Your task to perform on an android device: open a new tab in the chrome app Image 0: 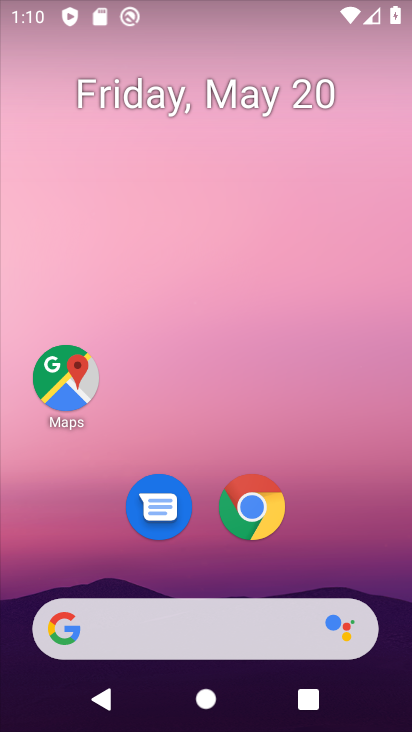
Step 0: click (250, 511)
Your task to perform on an android device: open a new tab in the chrome app Image 1: 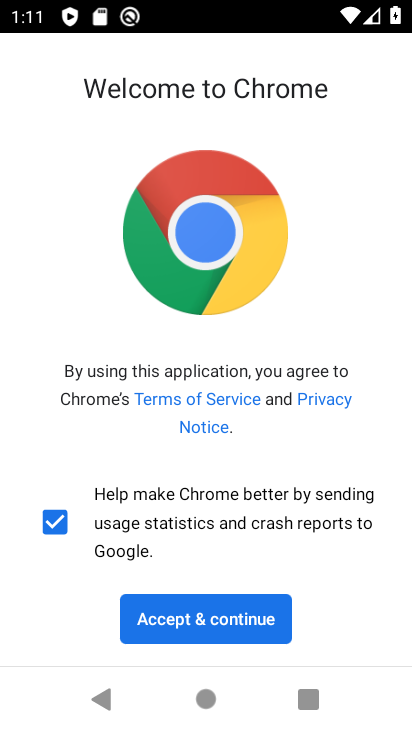
Step 1: click (217, 615)
Your task to perform on an android device: open a new tab in the chrome app Image 2: 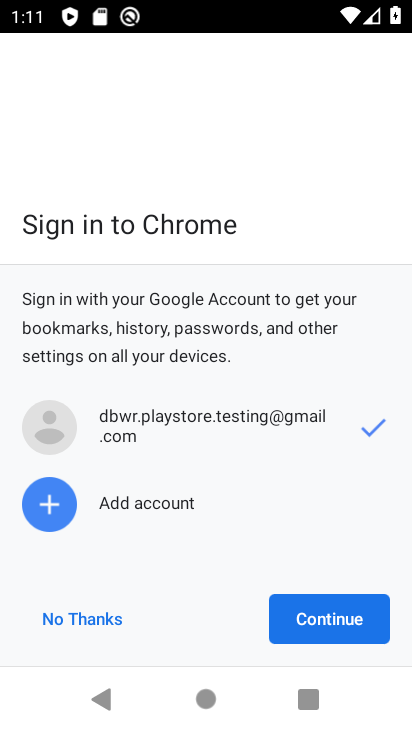
Step 2: click (337, 618)
Your task to perform on an android device: open a new tab in the chrome app Image 3: 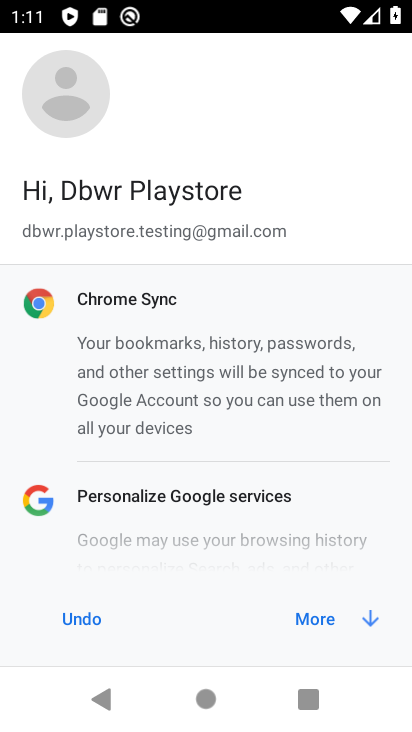
Step 3: click (337, 618)
Your task to perform on an android device: open a new tab in the chrome app Image 4: 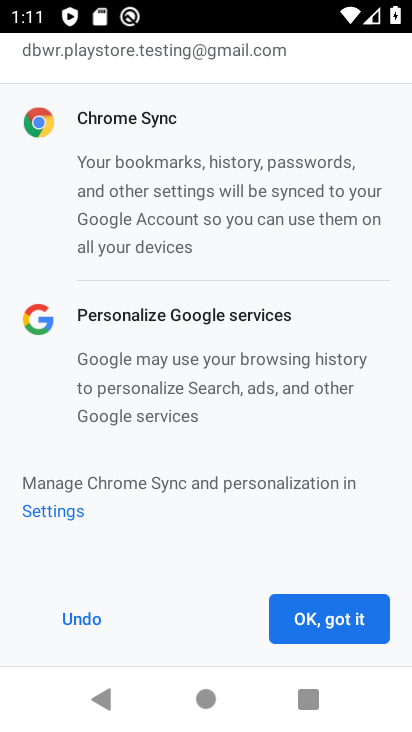
Step 4: click (337, 618)
Your task to perform on an android device: open a new tab in the chrome app Image 5: 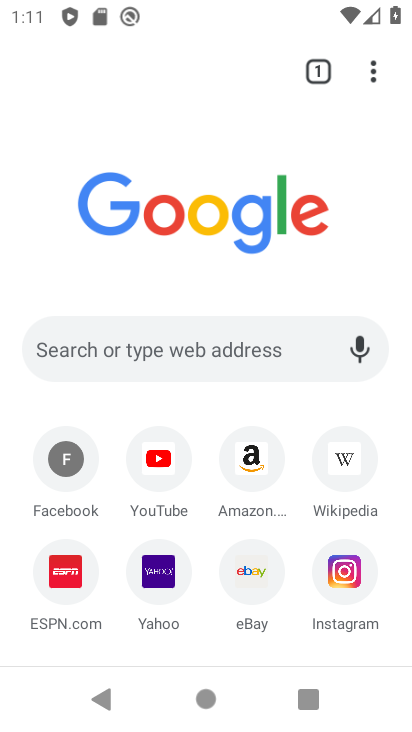
Step 5: click (371, 73)
Your task to perform on an android device: open a new tab in the chrome app Image 6: 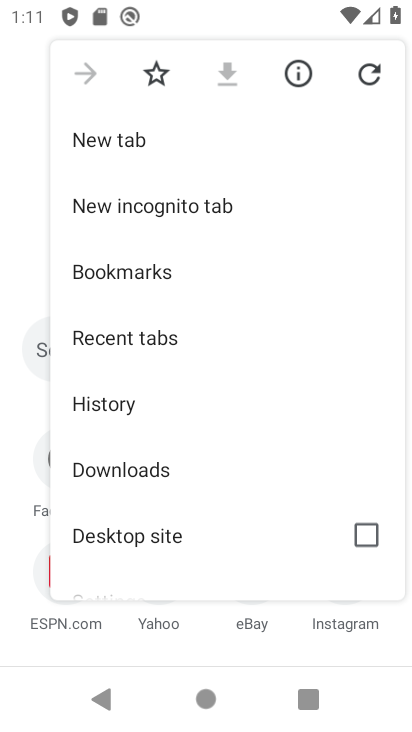
Step 6: click (112, 140)
Your task to perform on an android device: open a new tab in the chrome app Image 7: 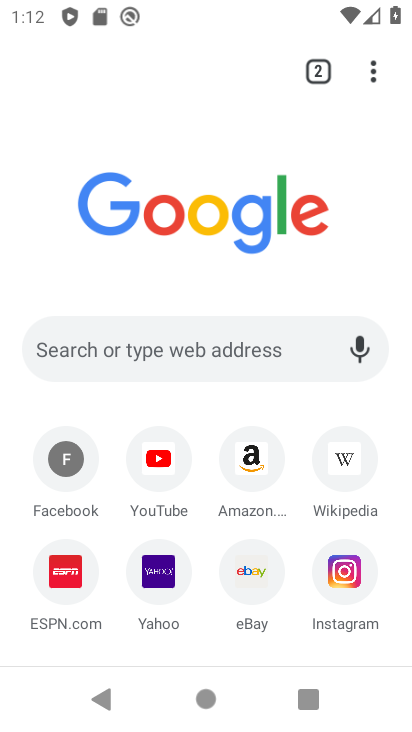
Step 7: task complete